Your task to perform on an android device: turn on data saver in the chrome app Image 0: 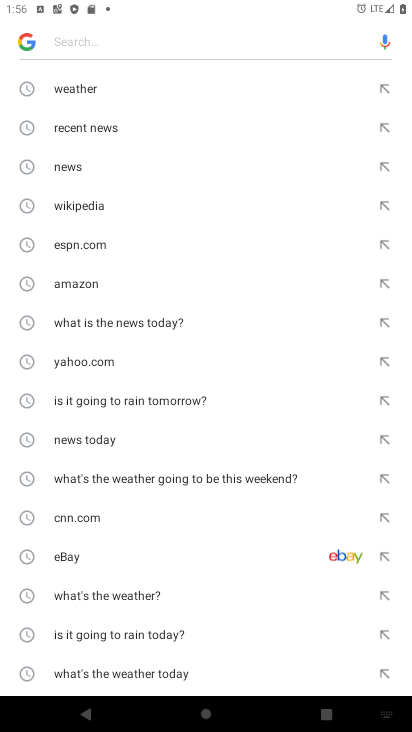
Step 0: press home button
Your task to perform on an android device: turn on data saver in the chrome app Image 1: 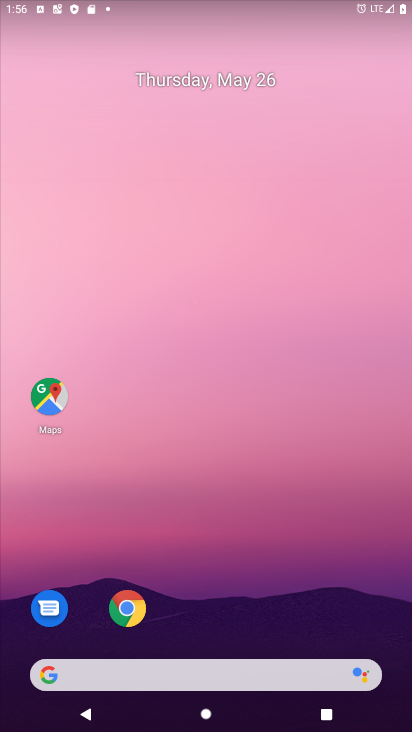
Step 1: click (127, 607)
Your task to perform on an android device: turn on data saver in the chrome app Image 2: 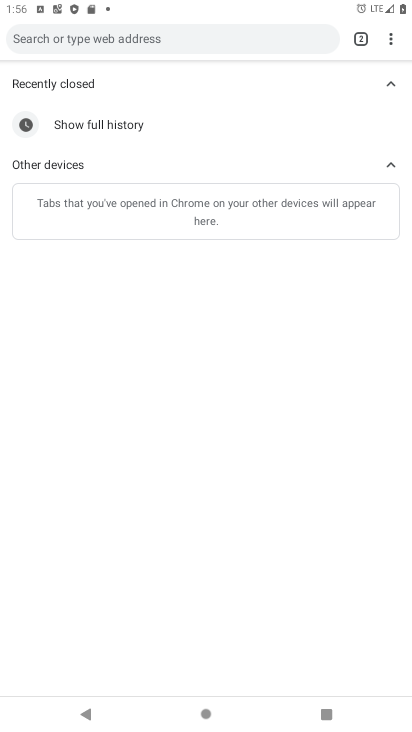
Step 2: click (391, 50)
Your task to perform on an android device: turn on data saver in the chrome app Image 3: 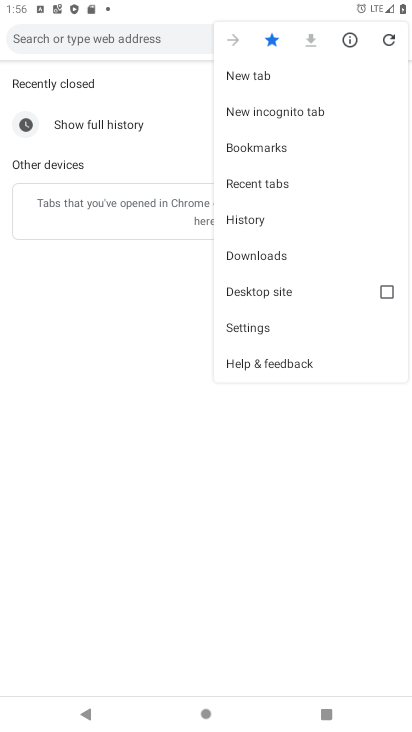
Step 3: click (260, 330)
Your task to perform on an android device: turn on data saver in the chrome app Image 4: 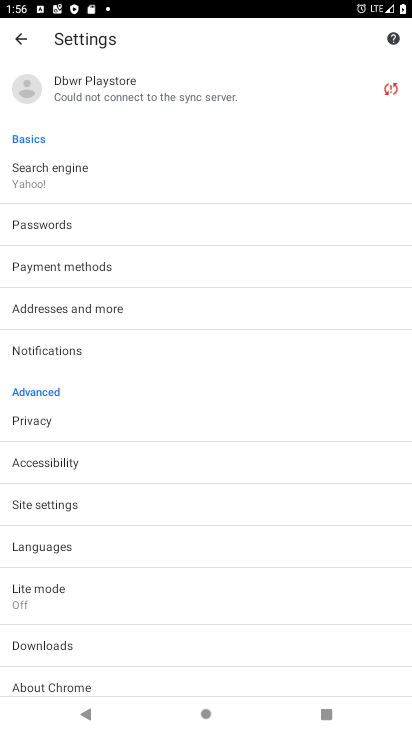
Step 4: click (49, 587)
Your task to perform on an android device: turn on data saver in the chrome app Image 5: 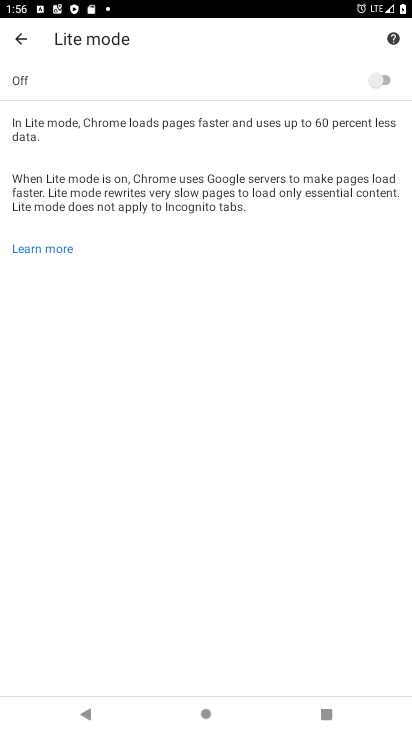
Step 5: click (392, 77)
Your task to perform on an android device: turn on data saver in the chrome app Image 6: 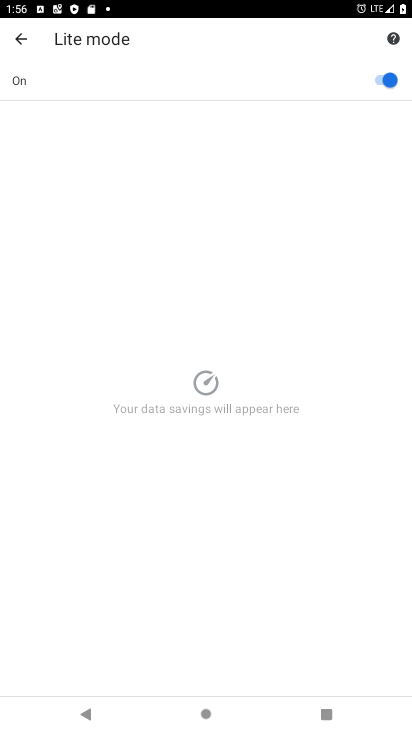
Step 6: task complete